Your task to perform on an android device: What is the news today? Image 0: 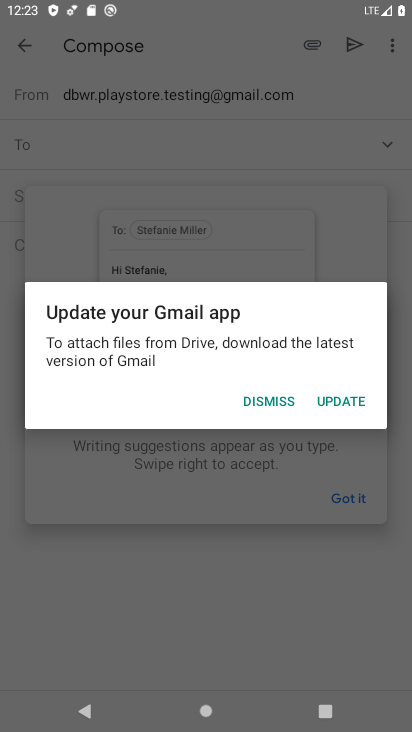
Step 0: press home button
Your task to perform on an android device: What is the news today? Image 1: 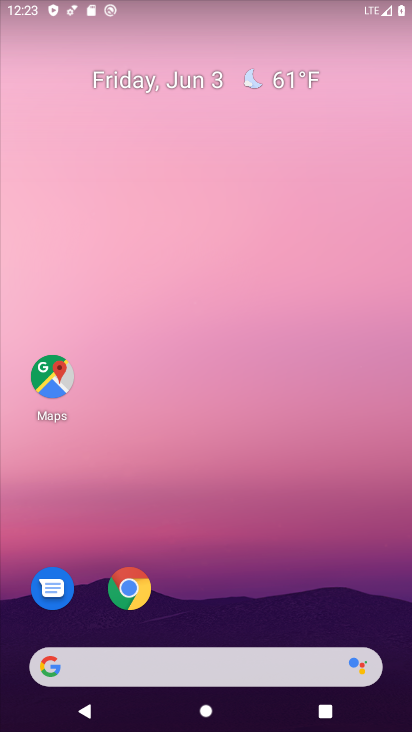
Step 1: drag from (283, 586) to (279, 96)
Your task to perform on an android device: What is the news today? Image 2: 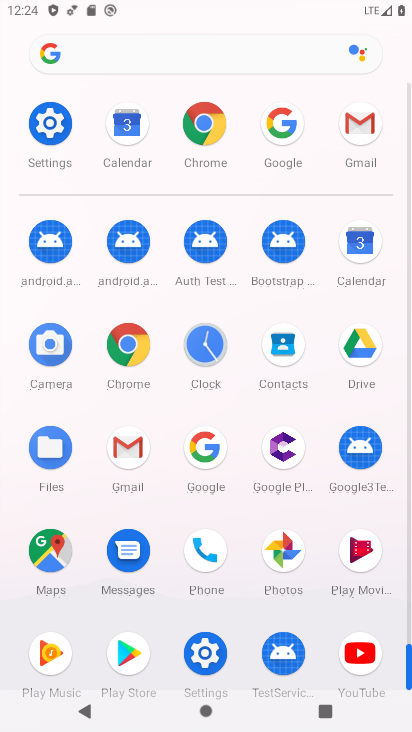
Step 2: click (210, 459)
Your task to perform on an android device: What is the news today? Image 3: 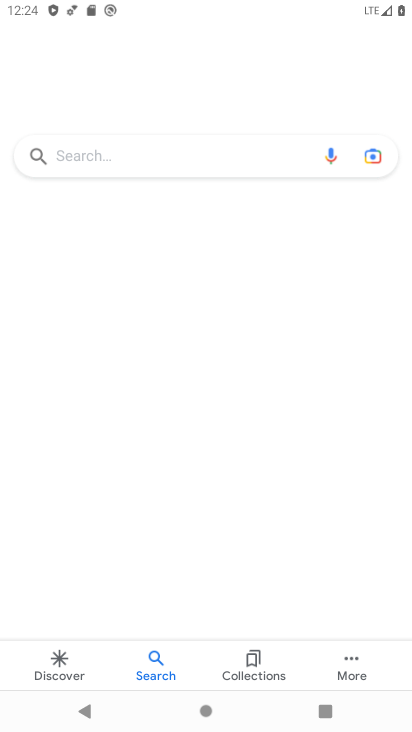
Step 3: click (42, 662)
Your task to perform on an android device: What is the news today? Image 4: 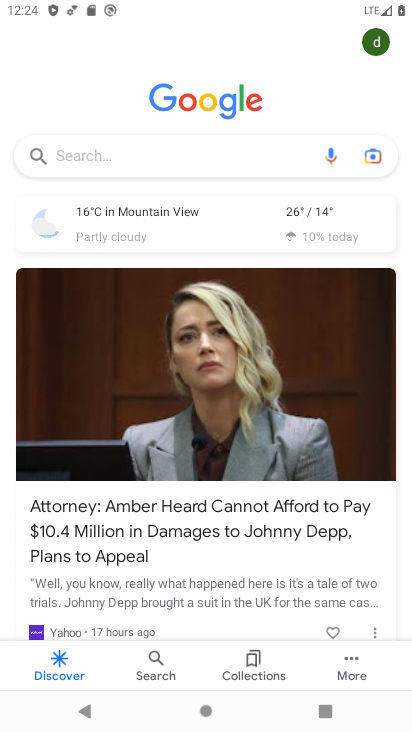
Step 4: task complete